Your task to perform on an android device: install app "Pandora - Music & Podcasts" Image 0: 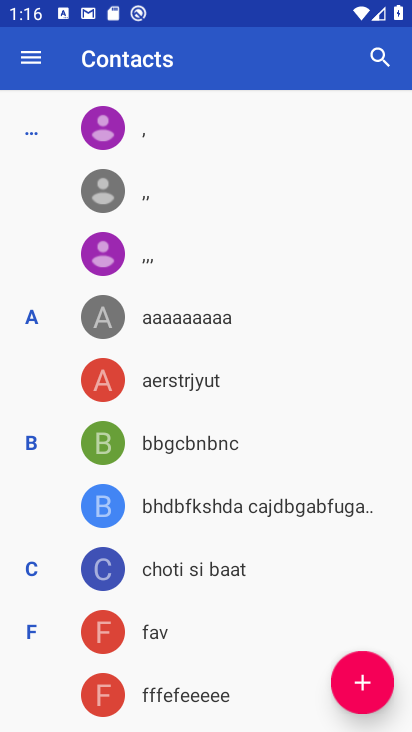
Step 0: press home button
Your task to perform on an android device: install app "Pandora - Music & Podcasts" Image 1: 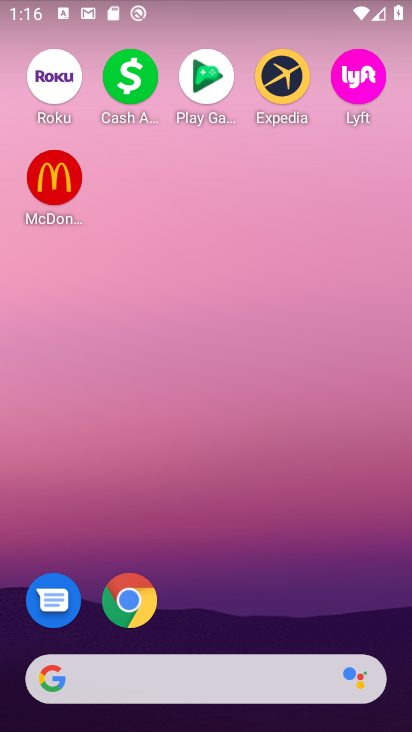
Step 1: drag from (240, 609) to (242, 25)
Your task to perform on an android device: install app "Pandora - Music & Podcasts" Image 2: 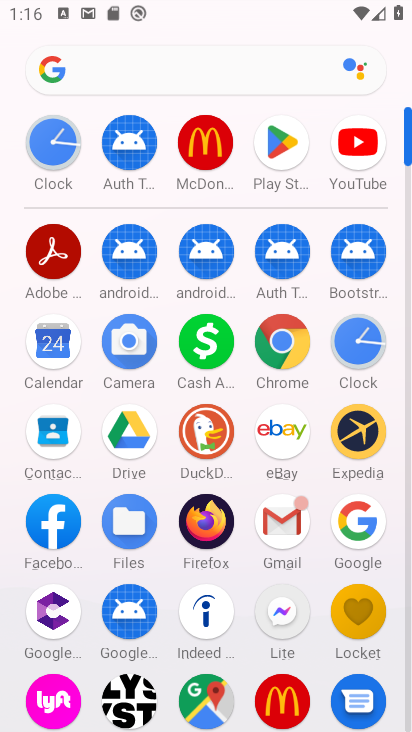
Step 2: click (280, 165)
Your task to perform on an android device: install app "Pandora - Music & Podcasts" Image 3: 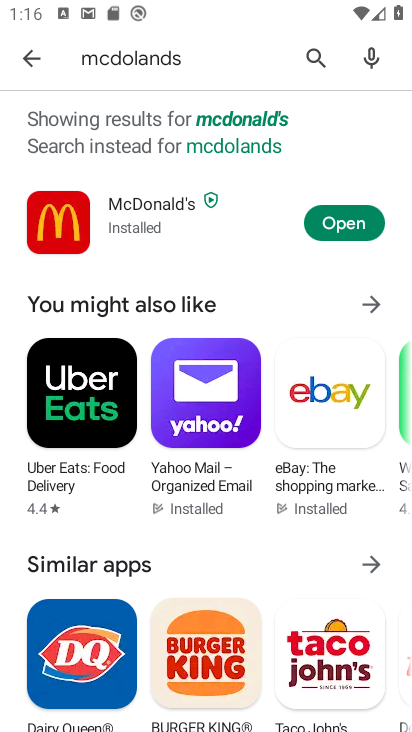
Step 3: click (322, 65)
Your task to perform on an android device: install app "Pandora - Music & Podcasts" Image 4: 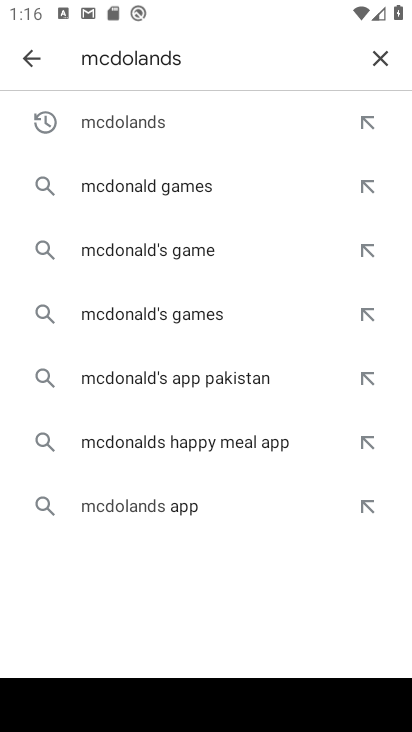
Step 4: click (381, 63)
Your task to perform on an android device: install app "Pandora - Music & Podcasts" Image 5: 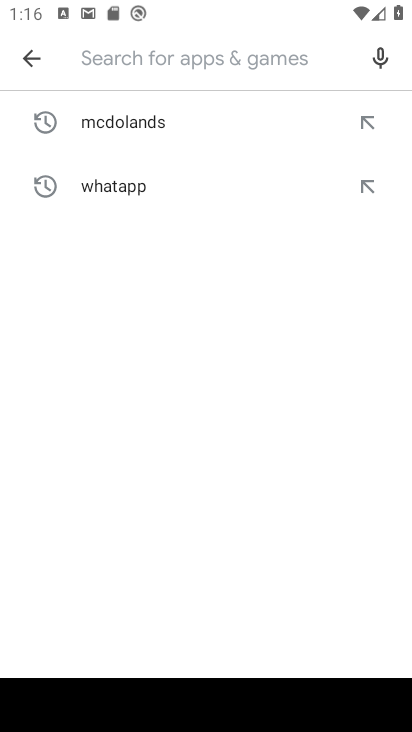
Step 5: type "pandora"
Your task to perform on an android device: install app "Pandora - Music & Podcasts" Image 6: 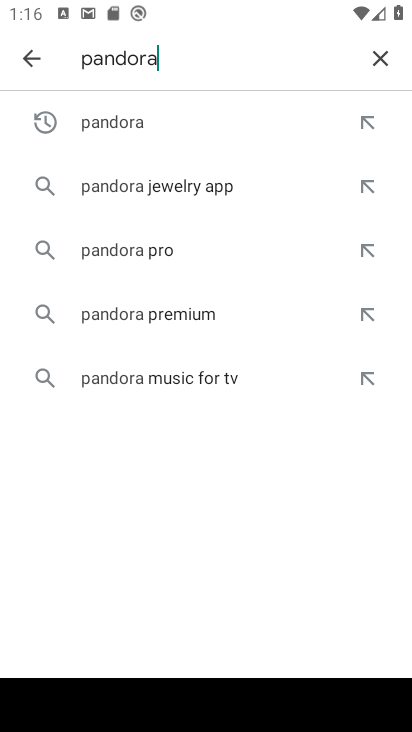
Step 6: click (133, 129)
Your task to perform on an android device: install app "Pandora - Music & Podcasts" Image 7: 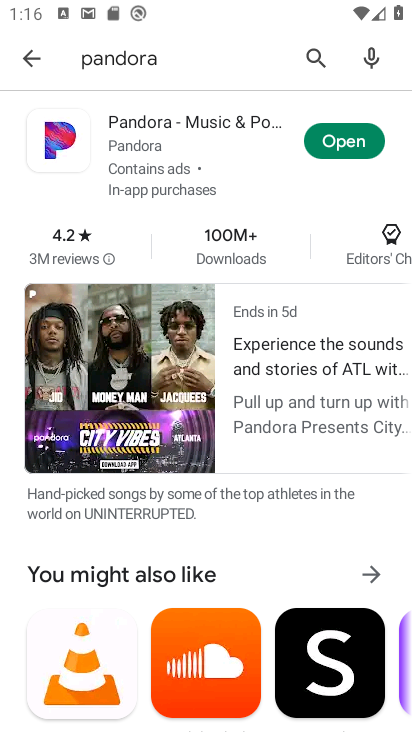
Step 7: click (309, 139)
Your task to perform on an android device: install app "Pandora - Music & Podcasts" Image 8: 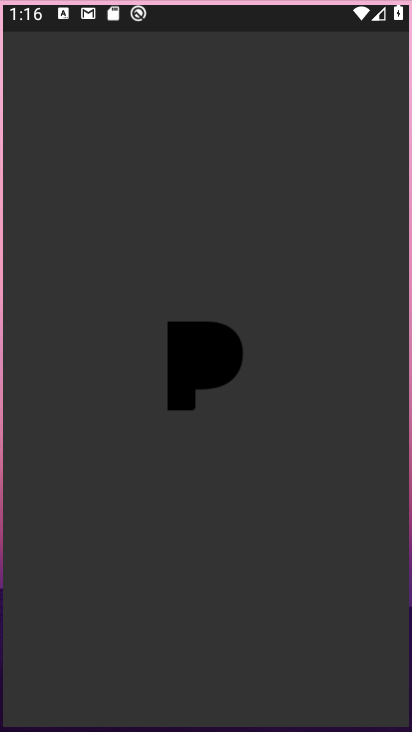
Step 8: task complete